Your task to perform on an android device: toggle translation in the chrome app Image 0: 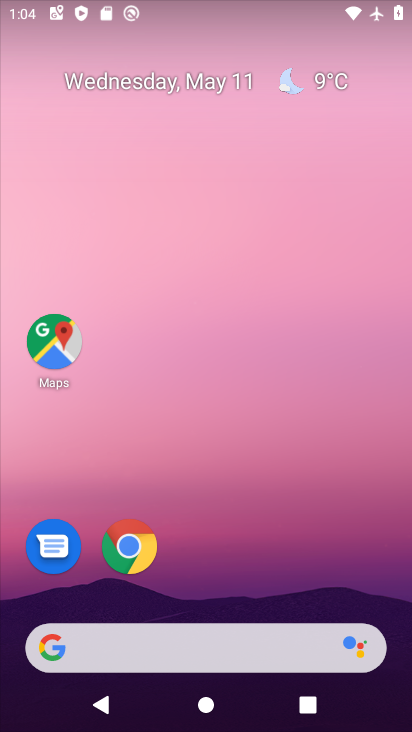
Step 0: drag from (257, 658) to (266, 52)
Your task to perform on an android device: toggle translation in the chrome app Image 1: 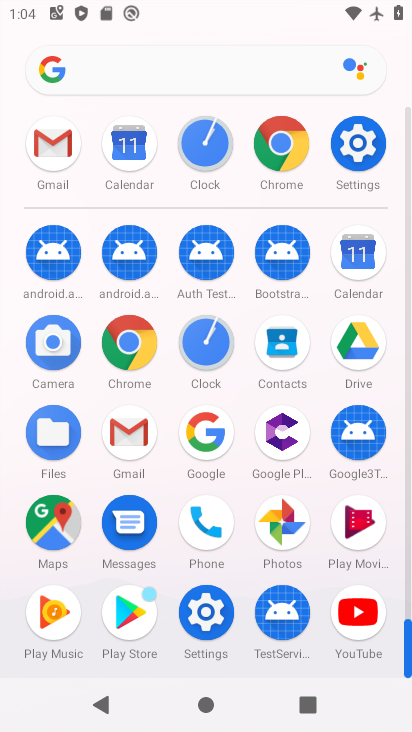
Step 1: click (134, 352)
Your task to perform on an android device: toggle translation in the chrome app Image 2: 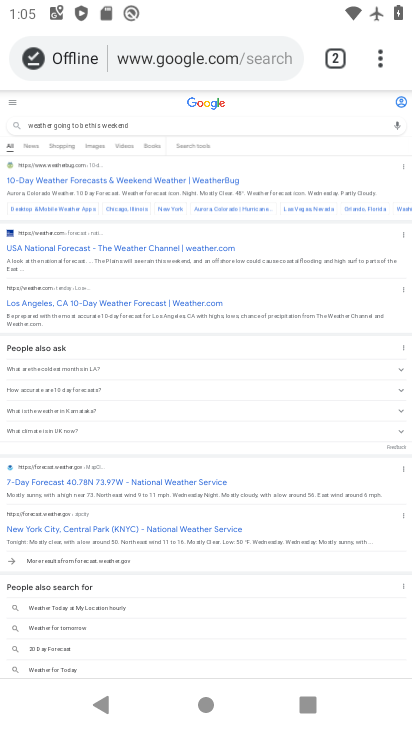
Step 2: click (390, 56)
Your task to perform on an android device: toggle translation in the chrome app Image 3: 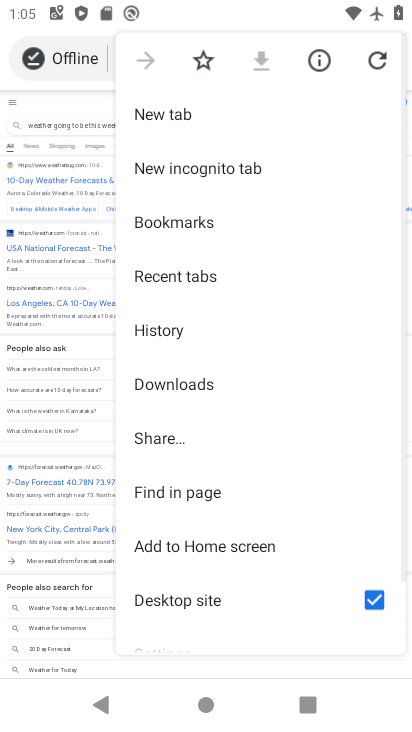
Step 3: drag from (194, 597) to (230, 229)
Your task to perform on an android device: toggle translation in the chrome app Image 4: 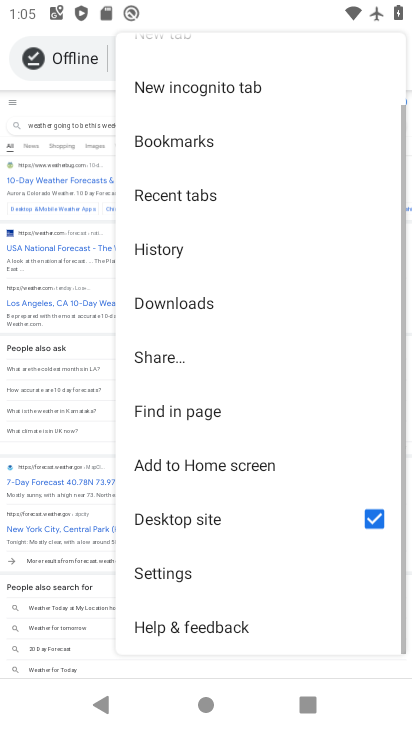
Step 4: click (178, 570)
Your task to perform on an android device: toggle translation in the chrome app Image 5: 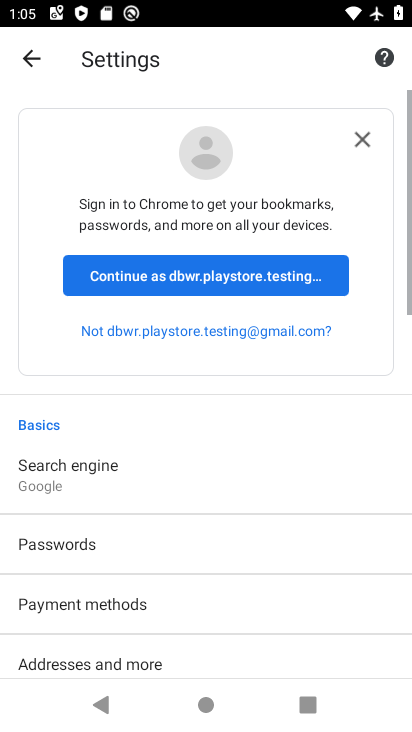
Step 5: drag from (211, 610) to (293, 21)
Your task to perform on an android device: toggle translation in the chrome app Image 6: 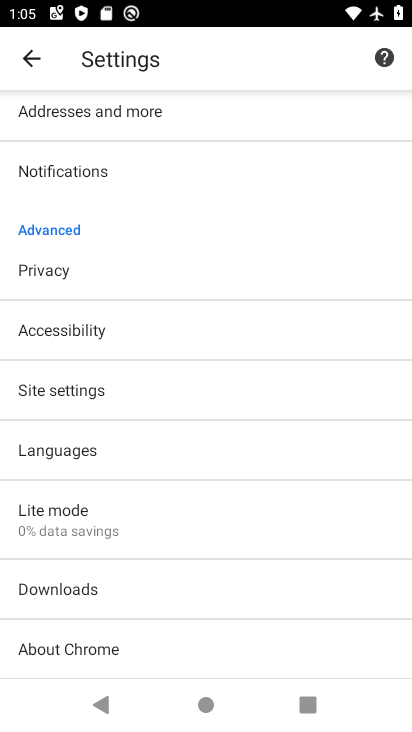
Step 6: click (108, 469)
Your task to perform on an android device: toggle translation in the chrome app Image 7: 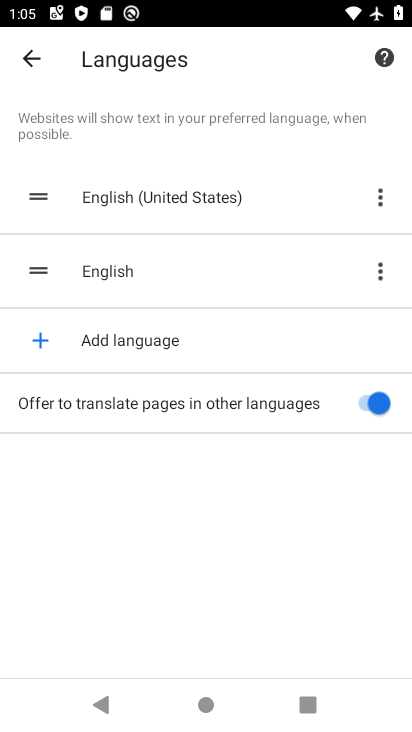
Step 7: click (379, 407)
Your task to perform on an android device: toggle translation in the chrome app Image 8: 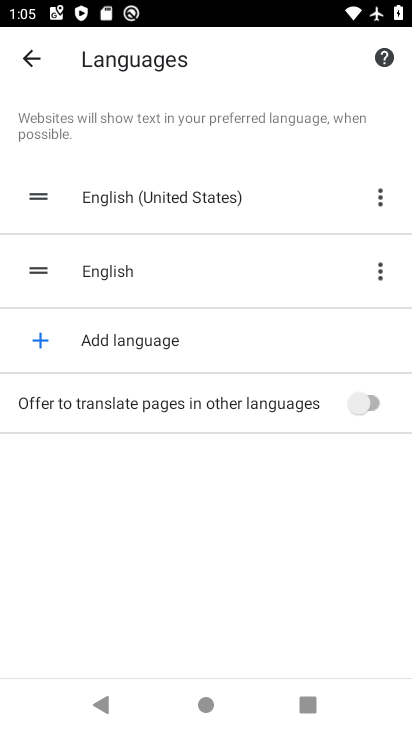
Step 8: task complete